Your task to perform on an android device: change the clock display to digital Image 0: 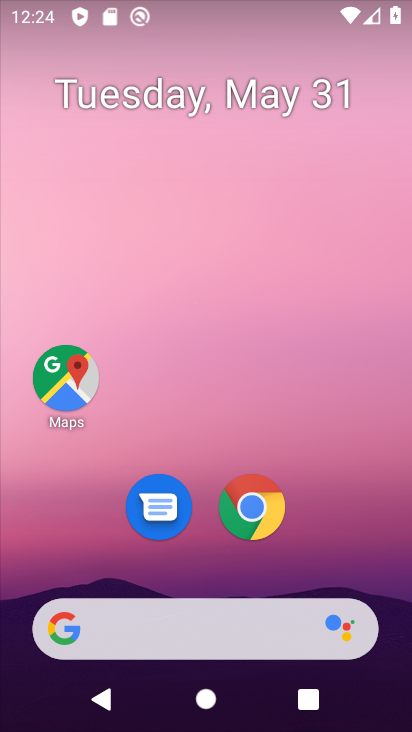
Step 0: drag from (368, 537) to (359, 34)
Your task to perform on an android device: change the clock display to digital Image 1: 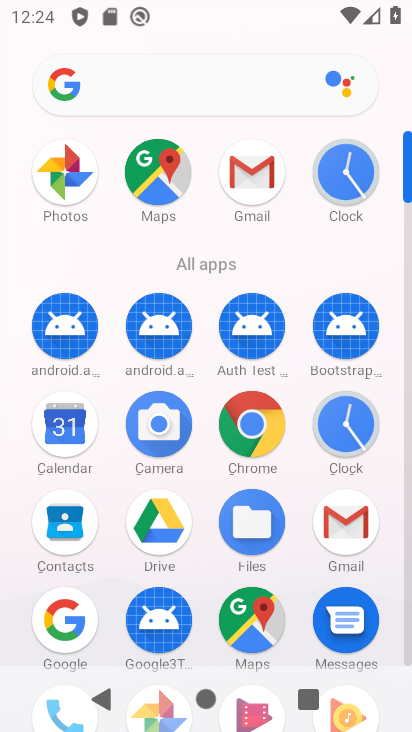
Step 1: click (335, 190)
Your task to perform on an android device: change the clock display to digital Image 2: 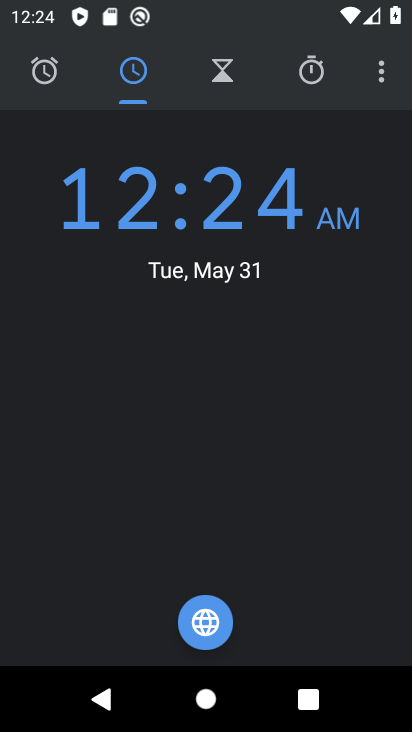
Step 2: click (384, 70)
Your task to perform on an android device: change the clock display to digital Image 3: 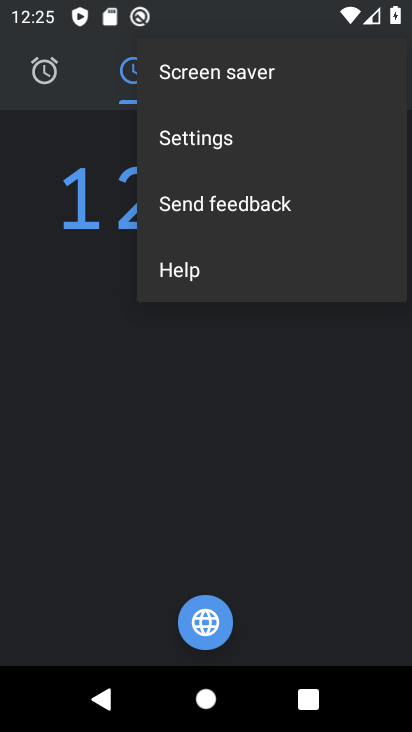
Step 3: click (205, 133)
Your task to perform on an android device: change the clock display to digital Image 4: 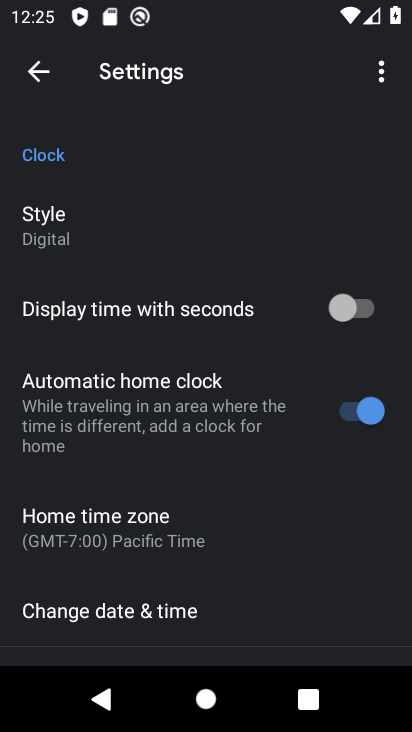
Step 4: task complete